Your task to perform on an android device: open app "Facebook" (install if not already installed) and enter user name: "resultants@gmail.com" and password: "earned" Image 0: 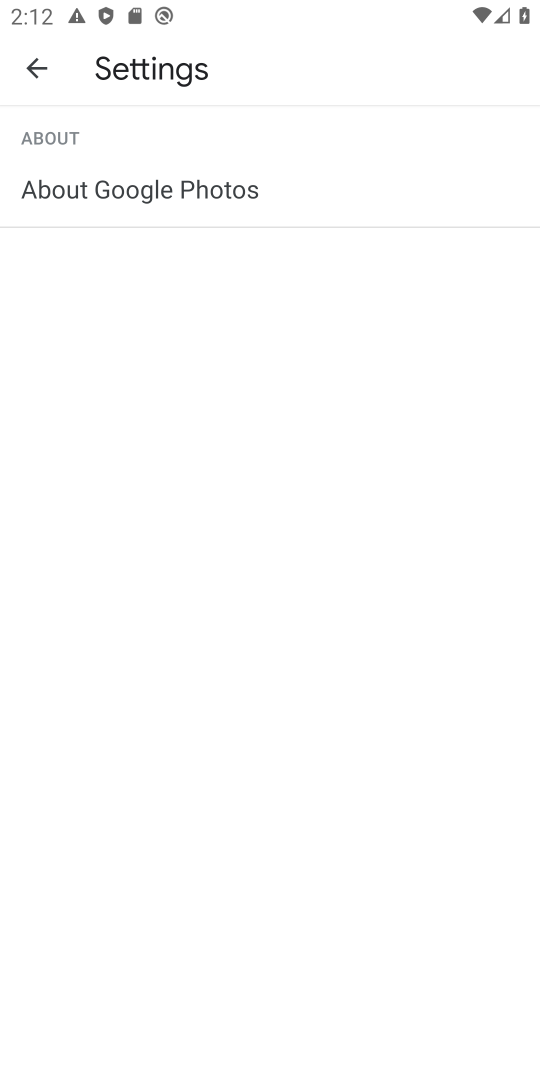
Step 0: press back button
Your task to perform on an android device: open app "Facebook" (install if not already installed) and enter user name: "resultants@gmail.com" and password: "earned" Image 1: 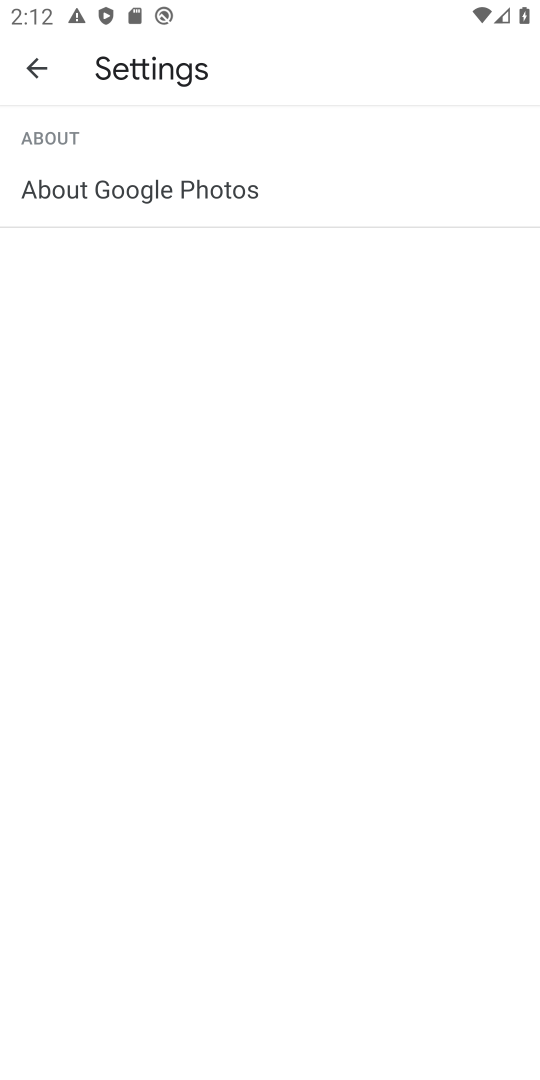
Step 1: press home button
Your task to perform on an android device: open app "Facebook" (install if not already installed) and enter user name: "resultants@gmail.com" and password: "earned" Image 2: 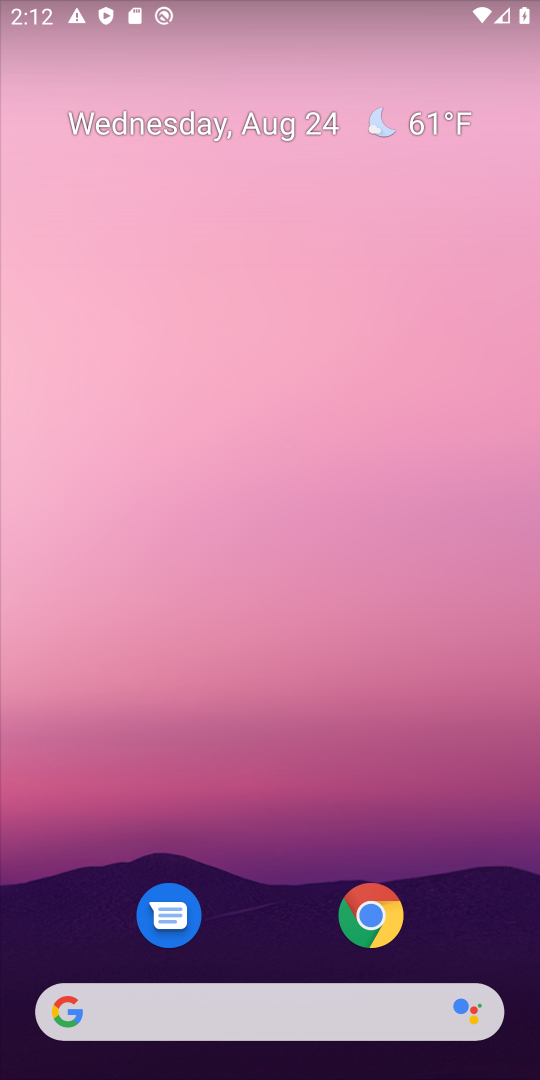
Step 2: drag from (255, 827) to (265, 278)
Your task to perform on an android device: open app "Facebook" (install if not already installed) and enter user name: "resultants@gmail.com" and password: "earned" Image 3: 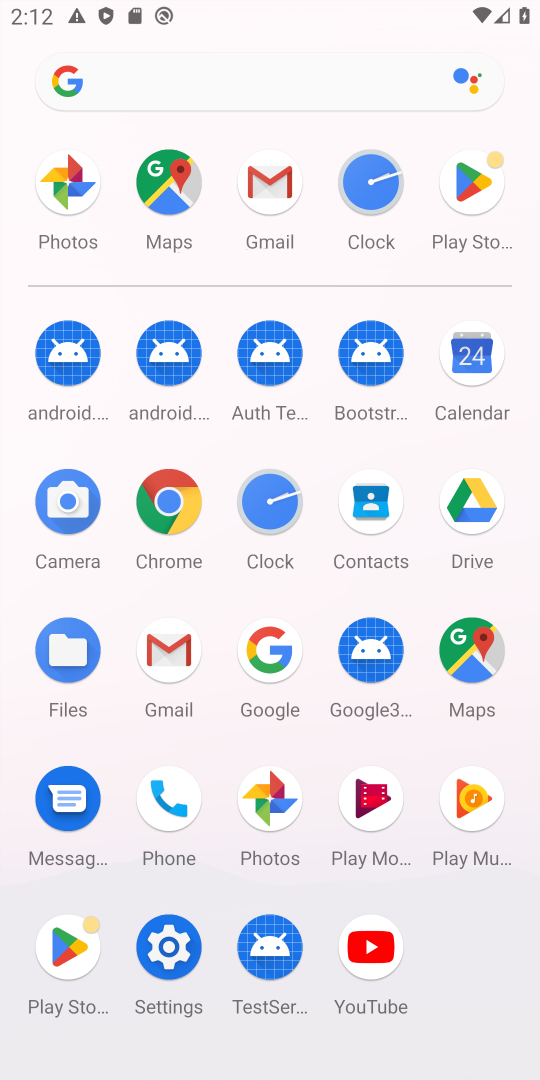
Step 3: click (473, 161)
Your task to perform on an android device: open app "Facebook" (install if not already installed) and enter user name: "resultants@gmail.com" and password: "earned" Image 4: 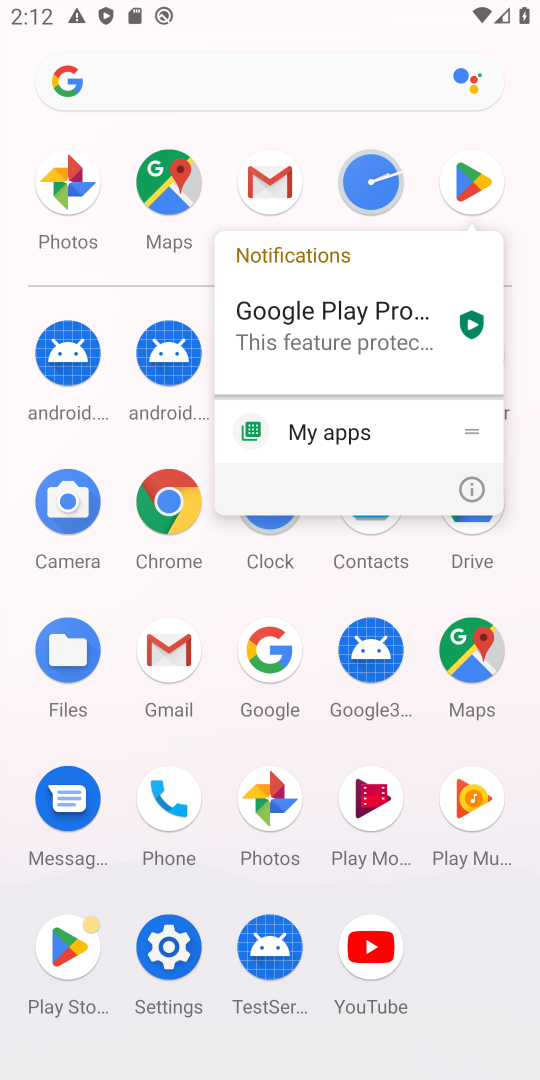
Step 4: click (473, 177)
Your task to perform on an android device: open app "Facebook" (install if not already installed) and enter user name: "resultants@gmail.com" and password: "earned" Image 5: 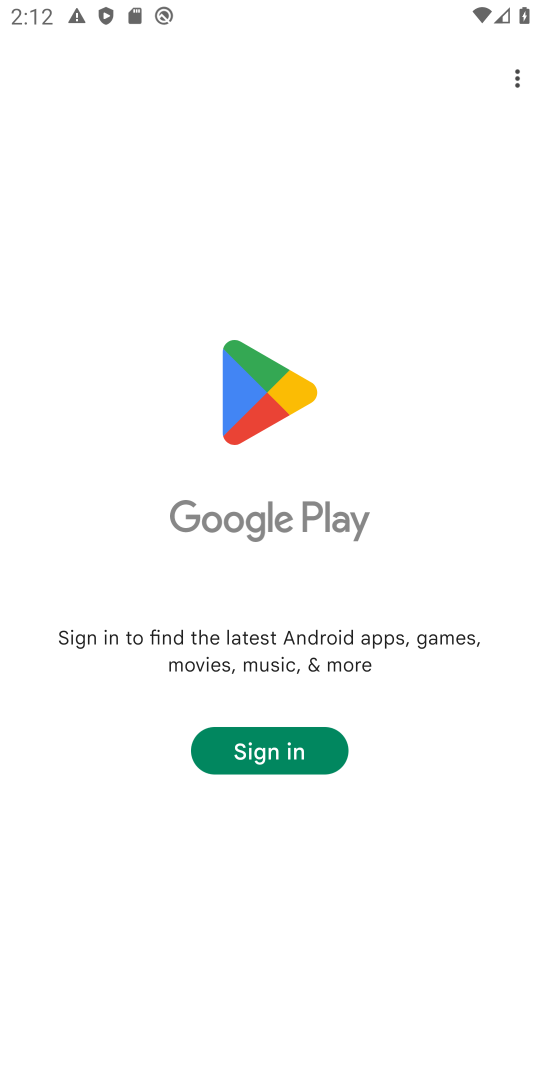
Step 5: task complete